Your task to perform on an android device: empty trash in google photos Image 0: 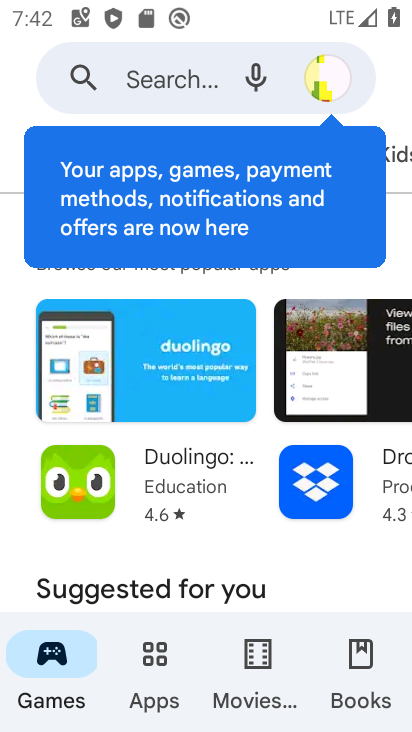
Step 0: press home button
Your task to perform on an android device: empty trash in google photos Image 1: 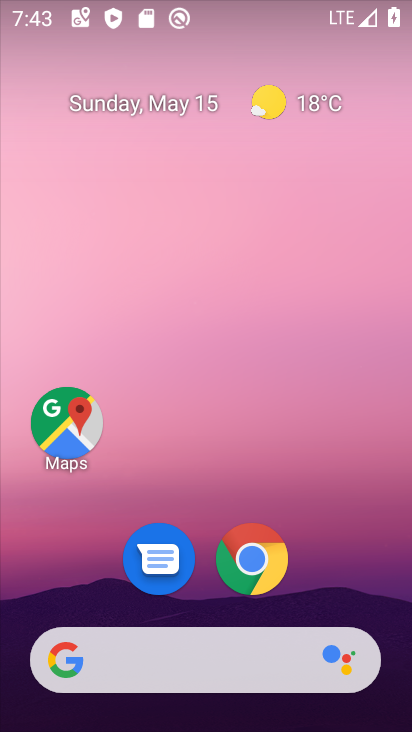
Step 1: drag from (319, 474) to (214, 28)
Your task to perform on an android device: empty trash in google photos Image 2: 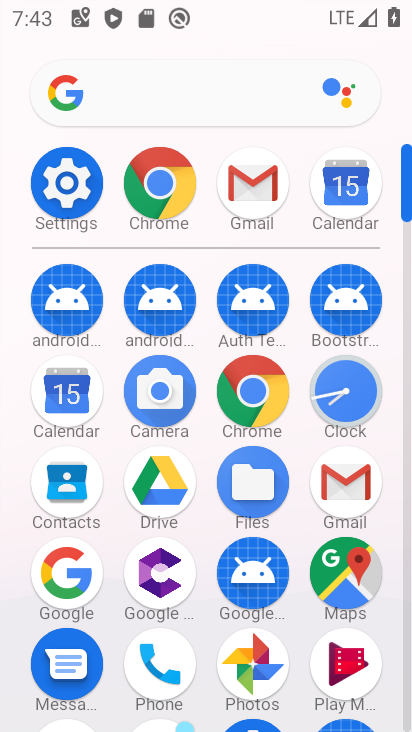
Step 2: click (256, 661)
Your task to perform on an android device: empty trash in google photos Image 3: 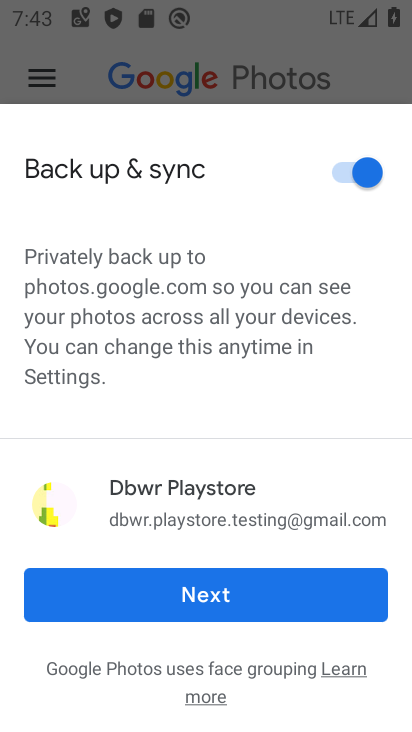
Step 3: click (205, 589)
Your task to perform on an android device: empty trash in google photos Image 4: 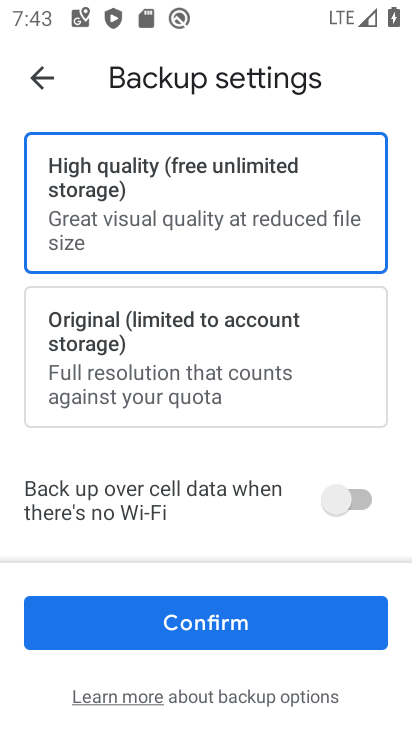
Step 4: click (209, 622)
Your task to perform on an android device: empty trash in google photos Image 5: 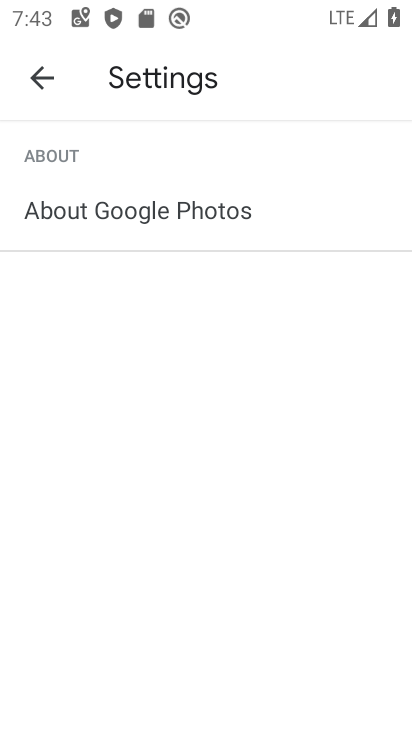
Step 5: click (39, 68)
Your task to perform on an android device: empty trash in google photos Image 6: 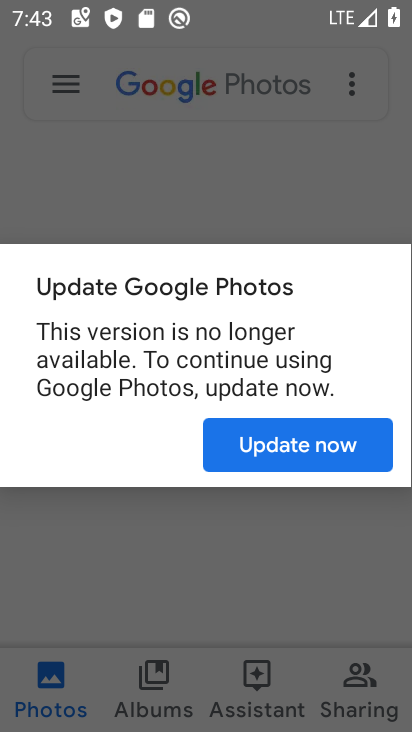
Step 6: click (263, 443)
Your task to perform on an android device: empty trash in google photos Image 7: 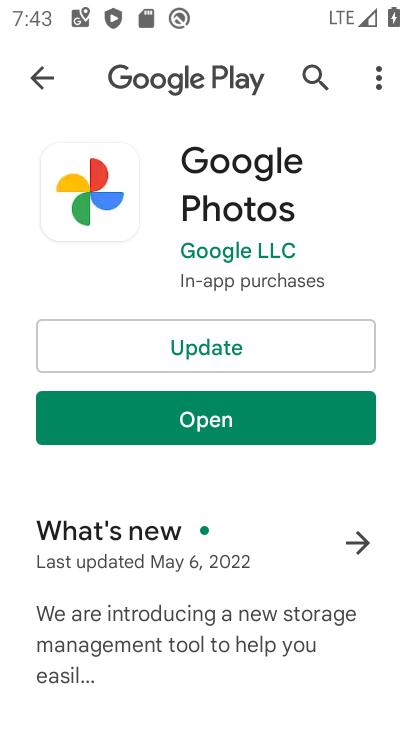
Step 7: click (208, 356)
Your task to perform on an android device: empty trash in google photos Image 8: 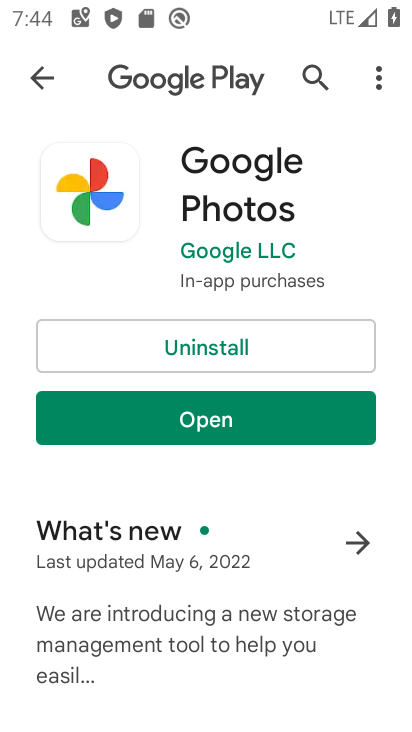
Step 8: click (219, 427)
Your task to perform on an android device: empty trash in google photos Image 9: 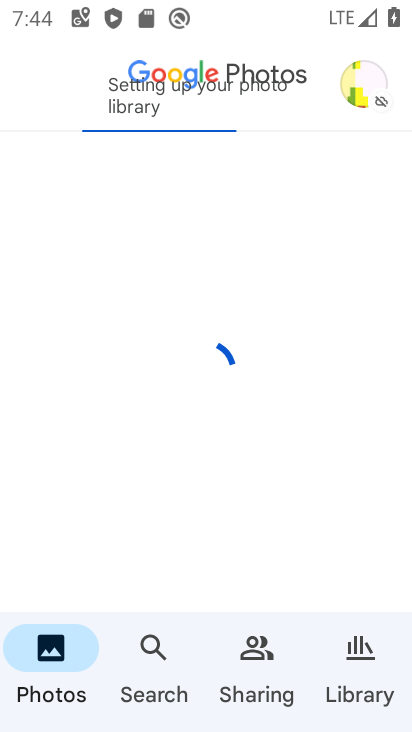
Step 9: click (359, 84)
Your task to perform on an android device: empty trash in google photos Image 10: 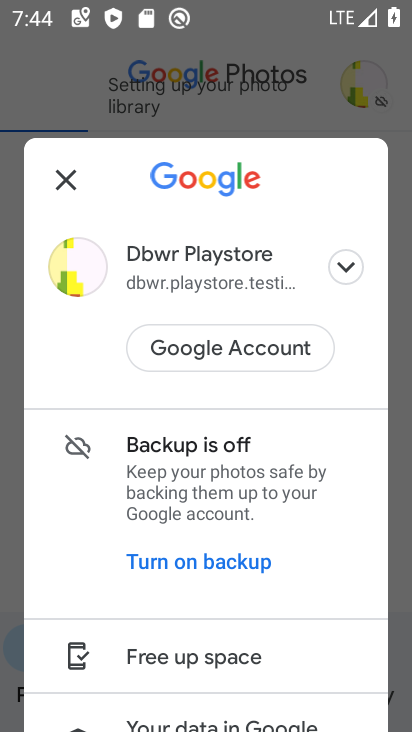
Step 10: drag from (245, 604) to (198, 357)
Your task to perform on an android device: empty trash in google photos Image 11: 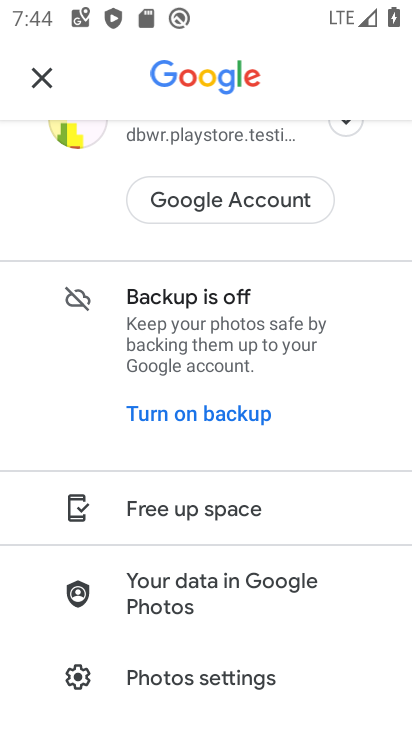
Step 11: drag from (266, 624) to (211, 417)
Your task to perform on an android device: empty trash in google photos Image 12: 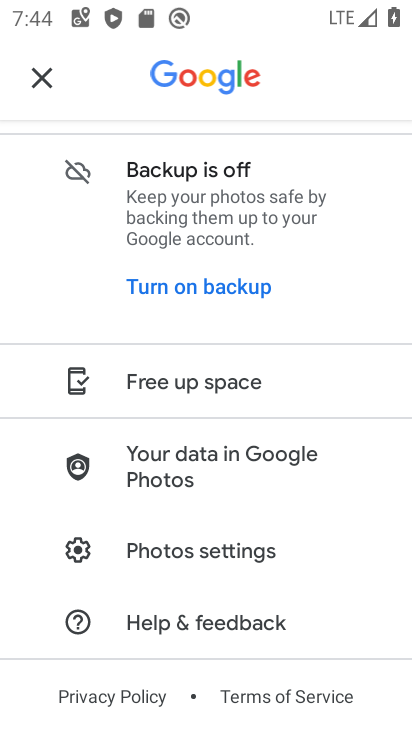
Step 12: click (36, 65)
Your task to perform on an android device: empty trash in google photos Image 13: 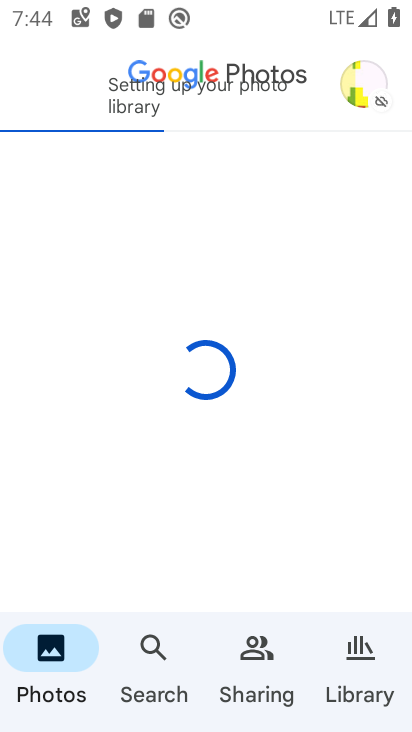
Step 13: click (351, 662)
Your task to perform on an android device: empty trash in google photos Image 14: 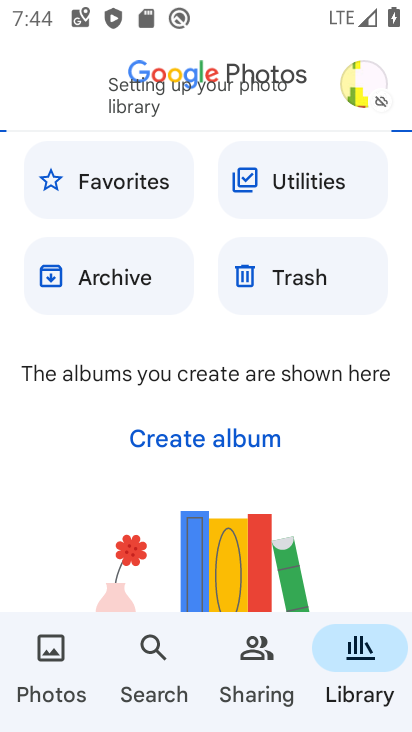
Step 14: click (279, 268)
Your task to perform on an android device: empty trash in google photos Image 15: 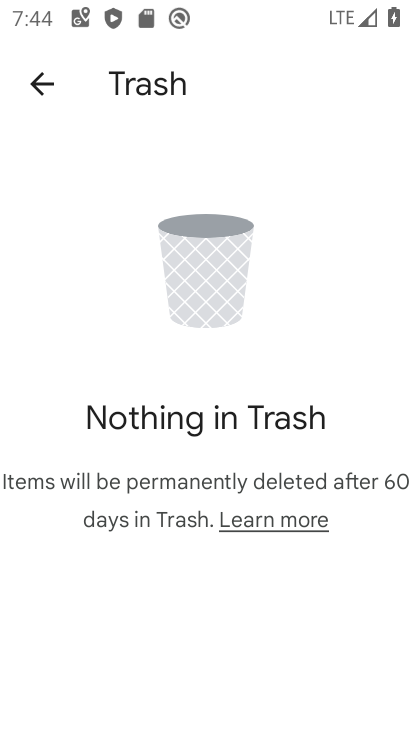
Step 15: task complete